Your task to perform on an android device: Empty the shopping cart on newegg.com. Search for "beats solo 3" on newegg.com, select the first entry, add it to the cart, then select checkout. Image 0: 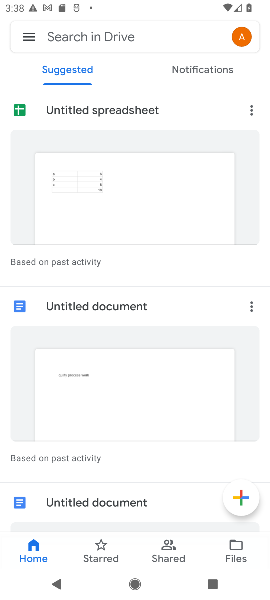
Step 0: task complete